Your task to perform on an android device: Open settings Image 0: 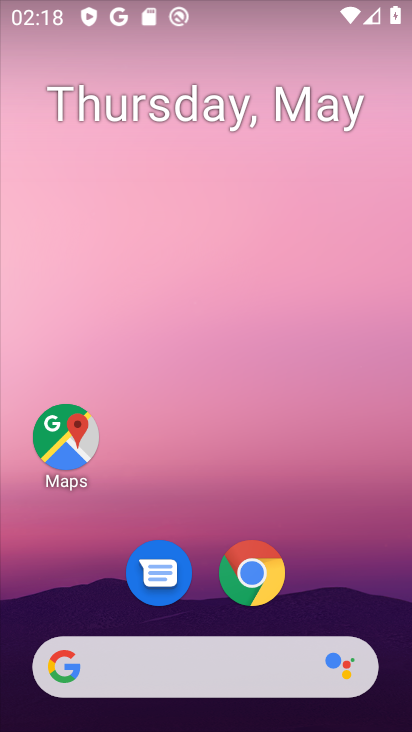
Step 0: drag from (344, 592) to (313, 170)
Your task to perform on an android device: Open settings Image 1: 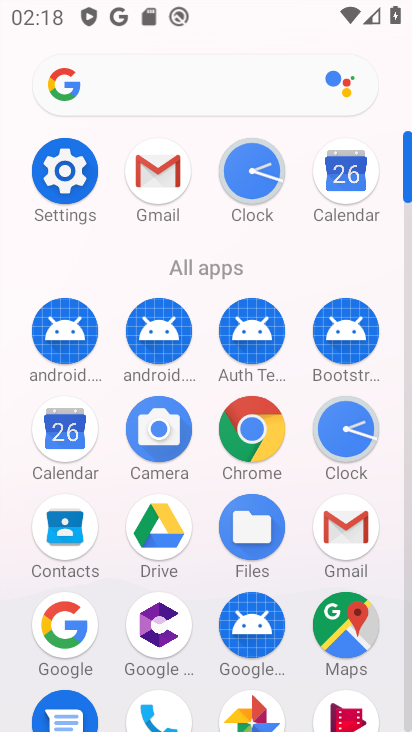
Step 1: click (73, 164)
Your task to perform on an android device: Open settings Image 2: 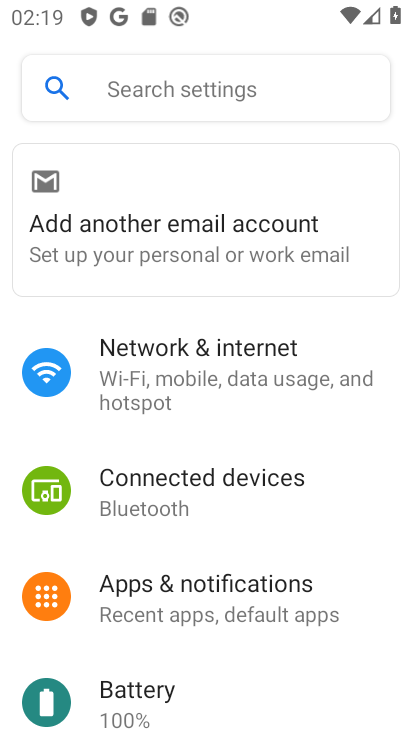
Step 2: task complete